Your task to perform on an android device: install app "Adobe Acrobat Reader" Image 0: 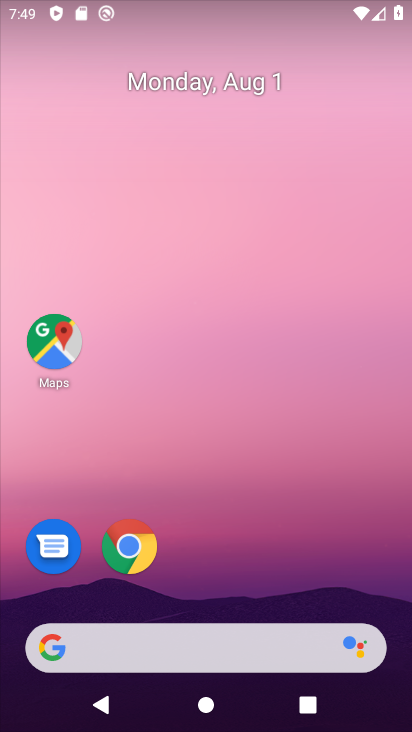
Step 0: drag from (275, 508) to (303, 43)
Your task to perform on an android device: install app "Adobe Acrobat Reader" Image 1: 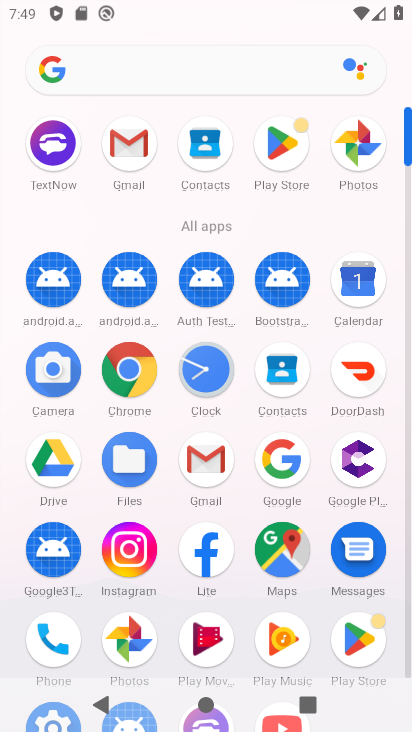
Step 1: click (280, 147)
Your task to perform on an android device: install app "Adobe Acrobat Reader" Image 2: 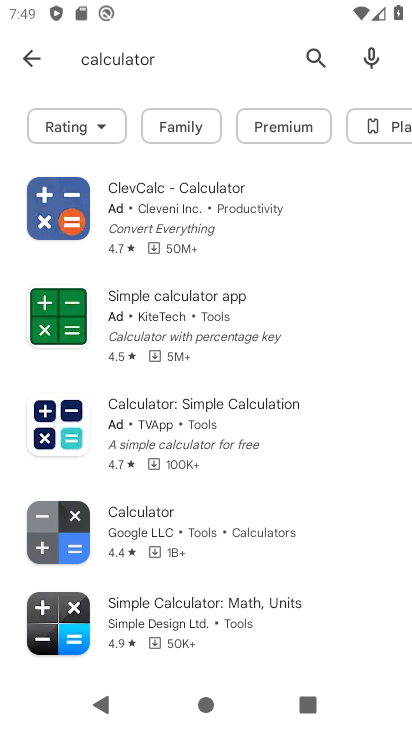
Step 2: click (264, 46)
Your task to perform on an android device: install app "Adobe Acrobat Reader" Image 3: 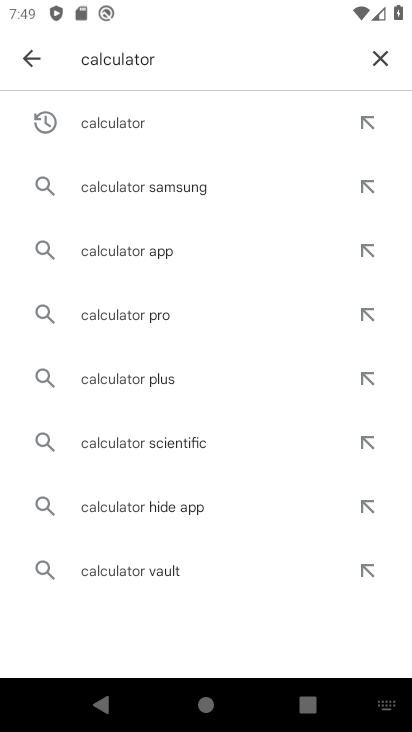
Step 3: click (383, 53)
Your task to perform on an android device: install app "Adobe Acrobat Reader" Image 4: 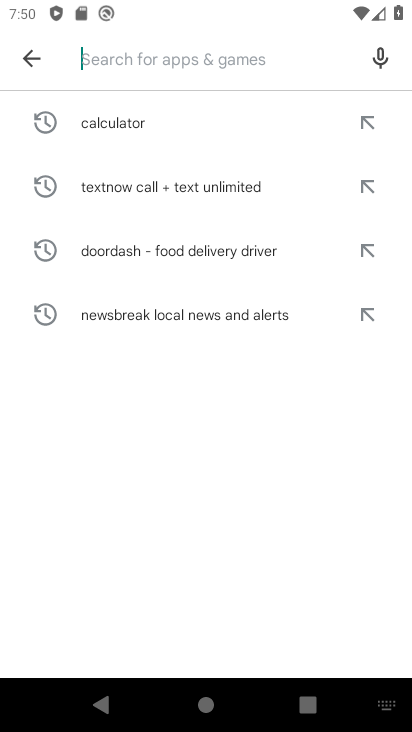
Step 4: type "adobe acrobat reader"
Your task to perform on an android device: install app "Adobe Acrobat Reader" Image 5: 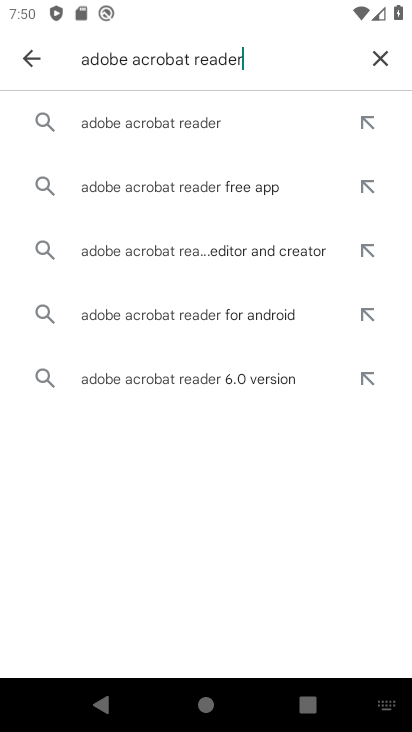
Step 5: click (188, 126)
Your task to perform on an android device: install app "Adobe Acrobat Reader" Image 6: 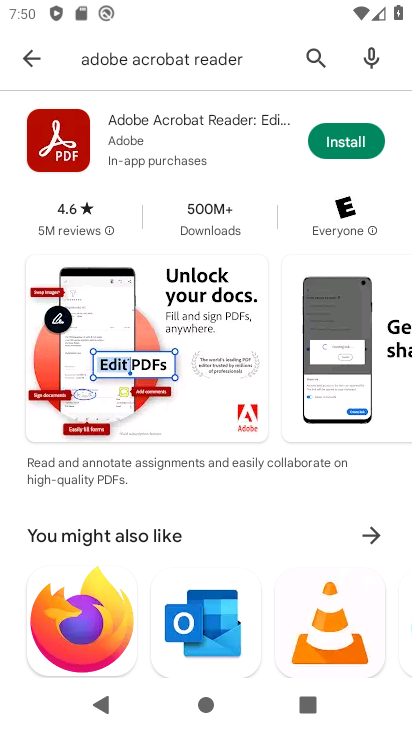
Step 6: click (329, 138)
Your task to perform on an android device: install app "Adobe Acrobat Reader" Image 7: 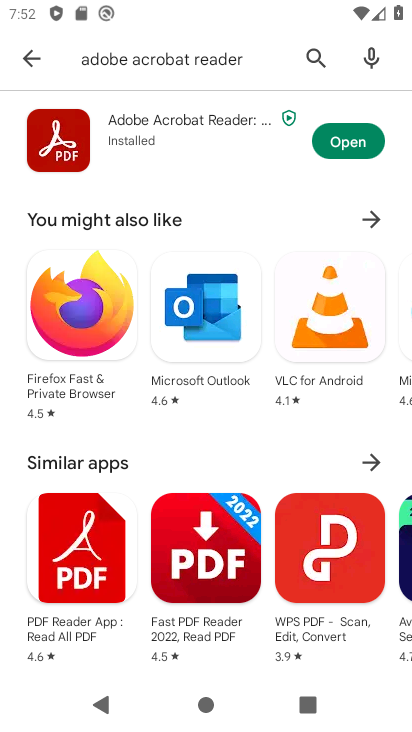
Step 7: task complete